Your task to perform on an android device: open app "File Manager" Image 0: 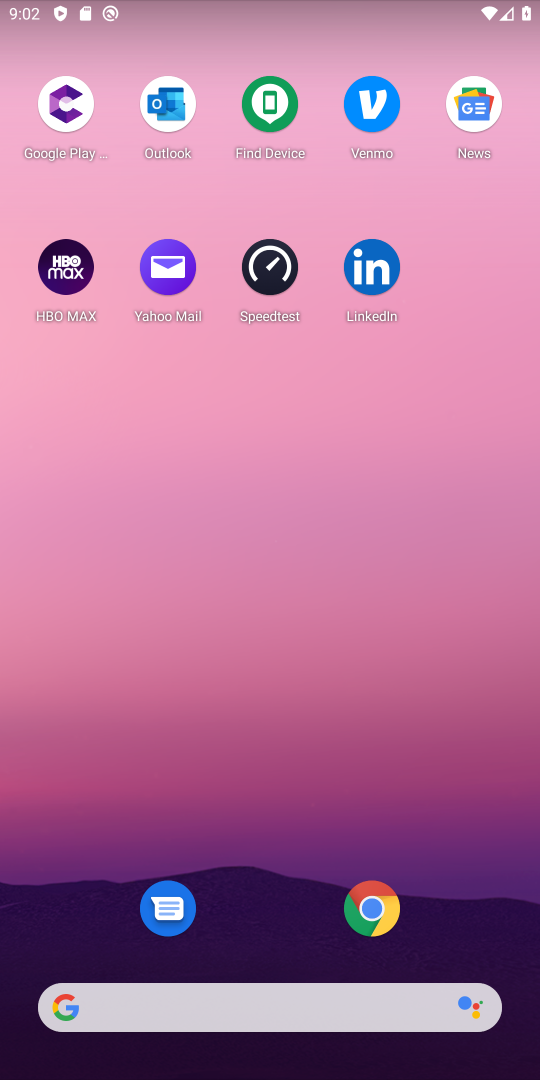
Step 0: drag from (245, 930) to (264, 0)
Your task to perform on an android device: open app "File Manager" Image 1: 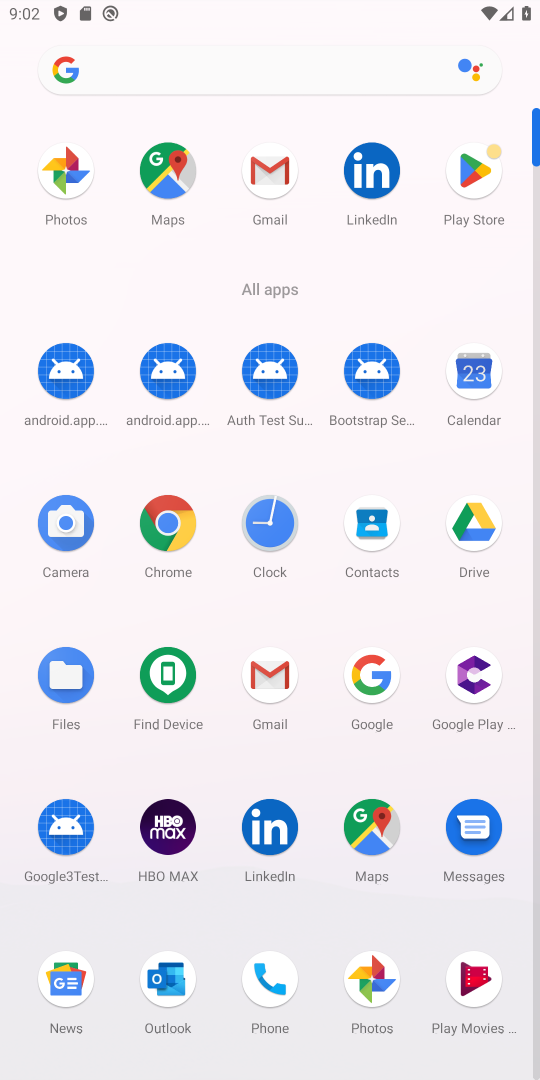
Step 1: click (492, 147)
Your task to perform on an android device: open app "File Manager" Image 2: 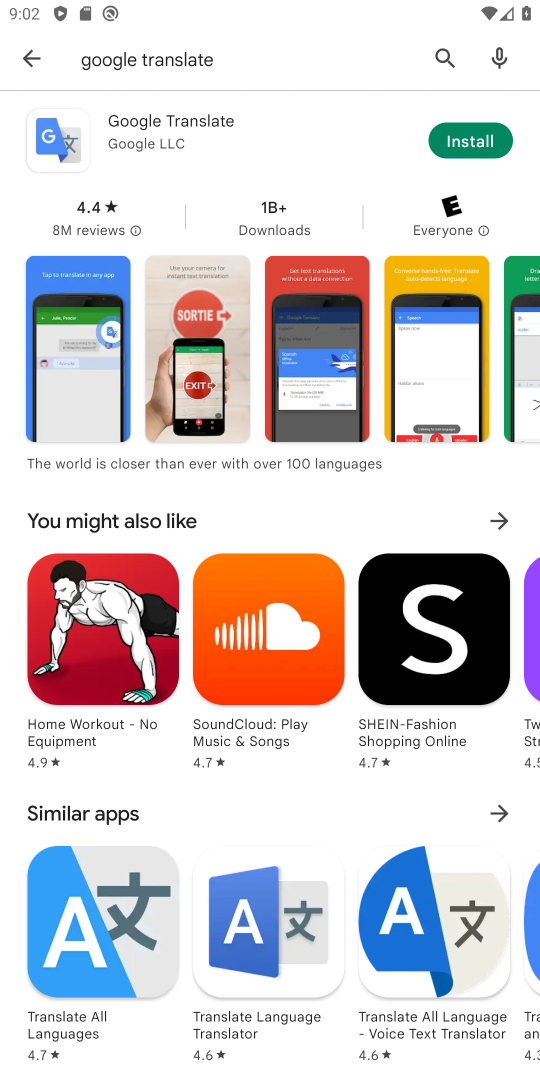
Step 2: click (252, 58)
Your task to perform on an android device: open app "File Manager" Image 3: 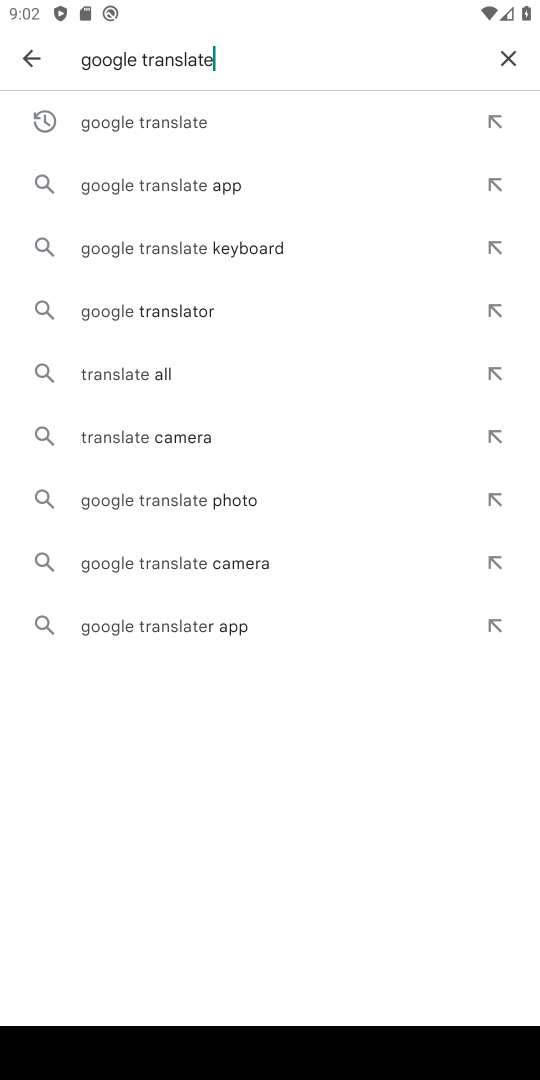
Step 3: click (509, 46)
Your task to perform on an android device: open app "File Manager" Image 4: 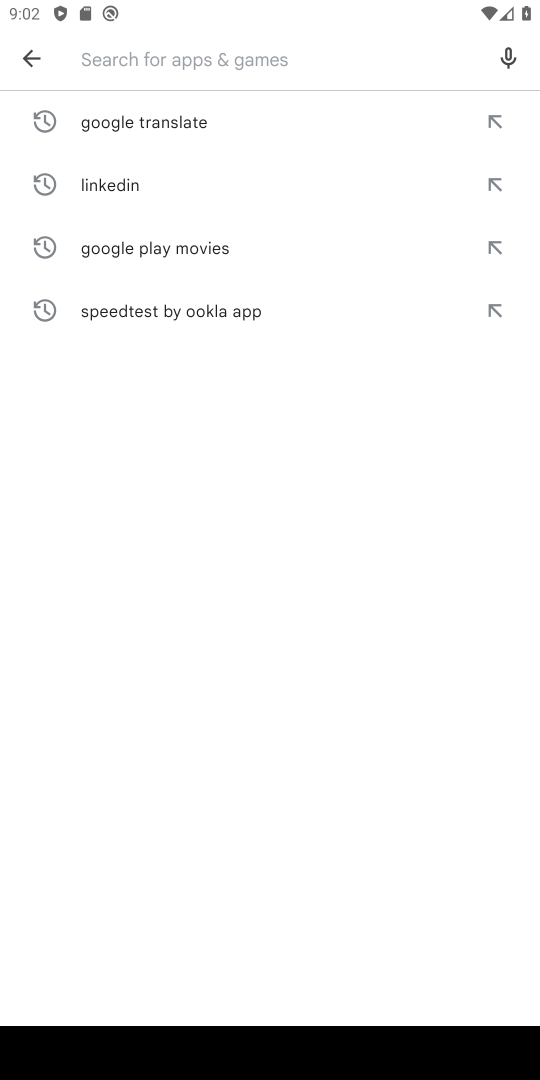
Step 4: type "file manager"
Your task to perform on an android device: open app "File Manager" Image 5: 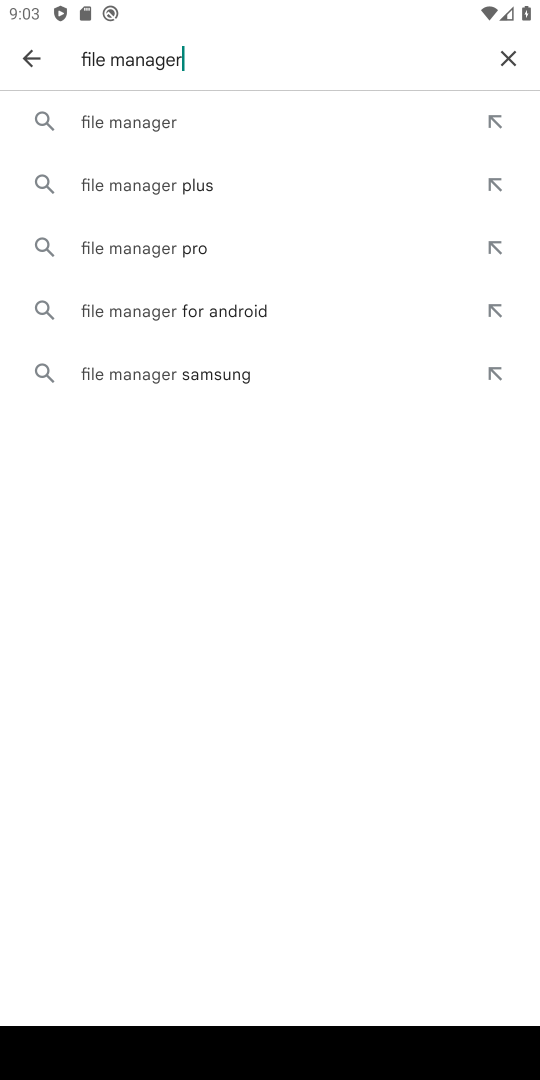
Step 5: click (183, 114)
Your task to perform on an android device: open app "File Manager" Image 6: 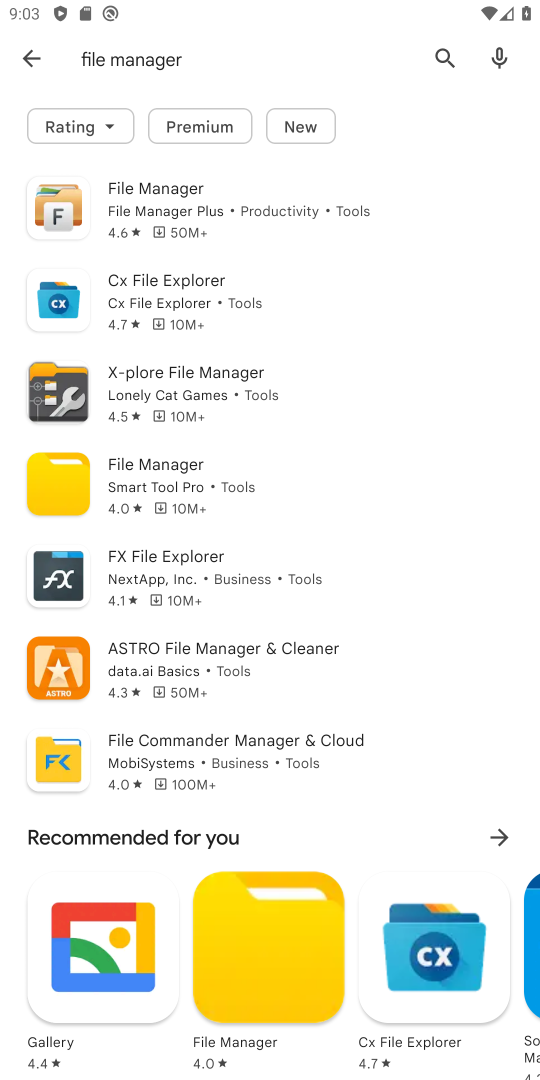
Step 6: click (229, 218)
Your task to perform on an android device: open app "File Manager" Image 7: 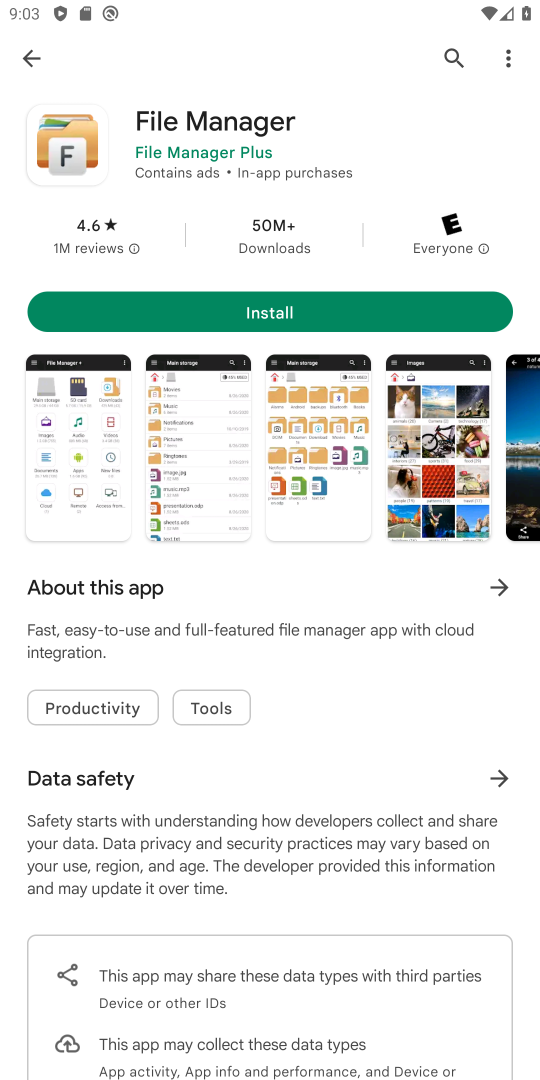
Step 7: task complete